Your task to perform on an android device: Search for Italian restaurants on Maps Image 0: 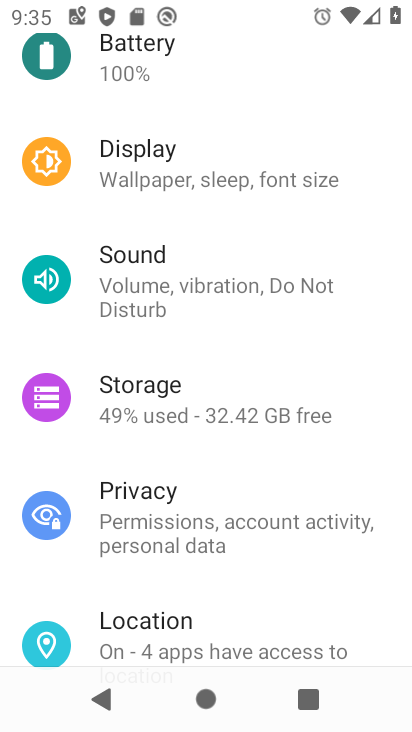
Step 0: press home button
Your task to perform on an android device: Search for Italian restaurants on Maps Image 1: 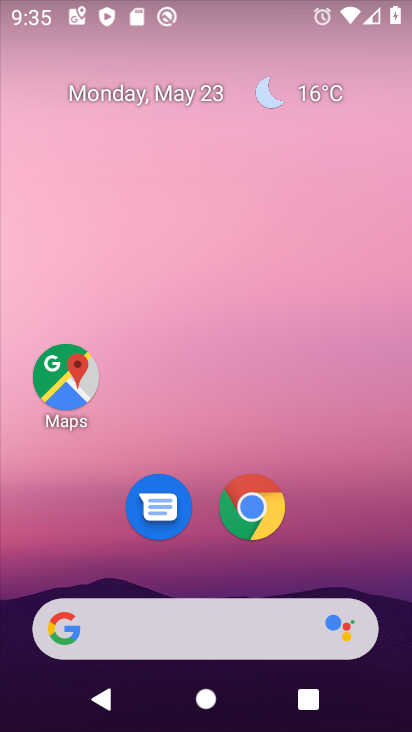
Step 1: click (58, 381)
Your task to perform on an android device: Search for Italian restaurants on Maps Image 2: 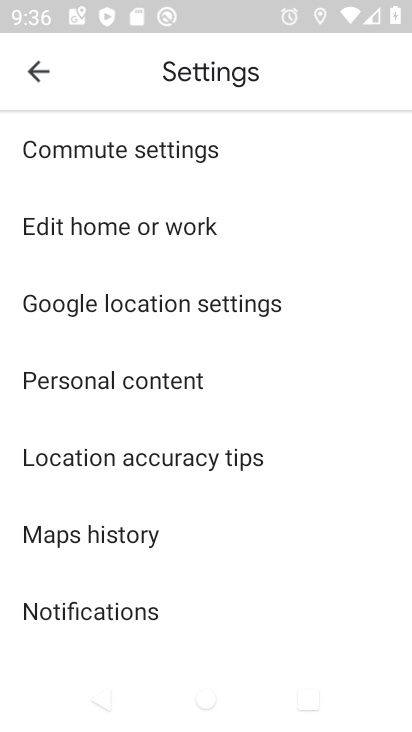
Step 2: click (34, 76)
Your task to perform on an android device: Search for Italian restaurants on Maps Image 3: 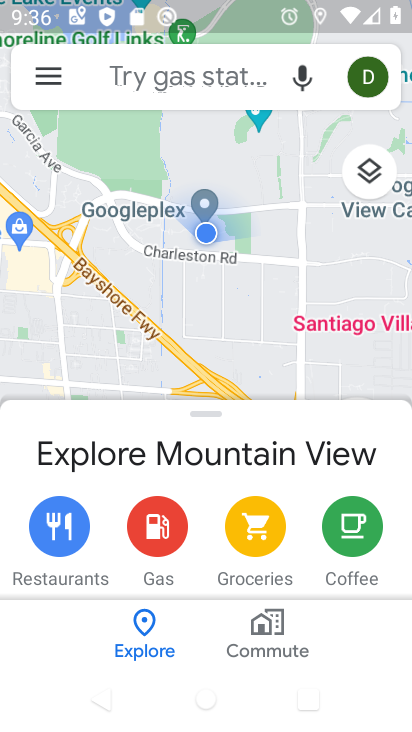
Step 3: click (145, 81)
Your task to perform on an android device: Search for Italian restaurants on Maps Image 4: 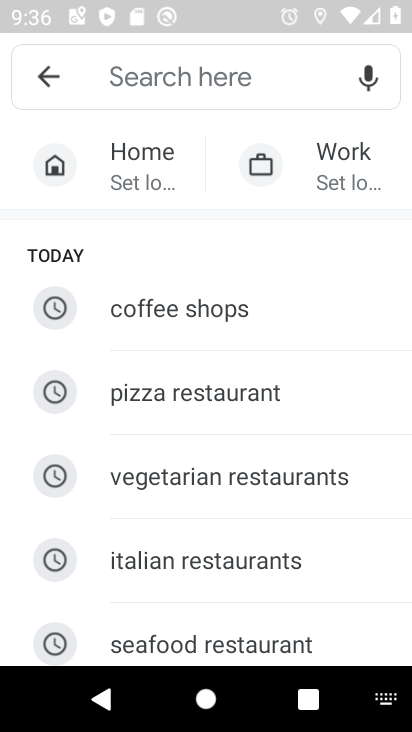
Step 4: type "italian restaurants"
Your task to perform on an android device: Search for Italian restaurants on Maps Image 5: 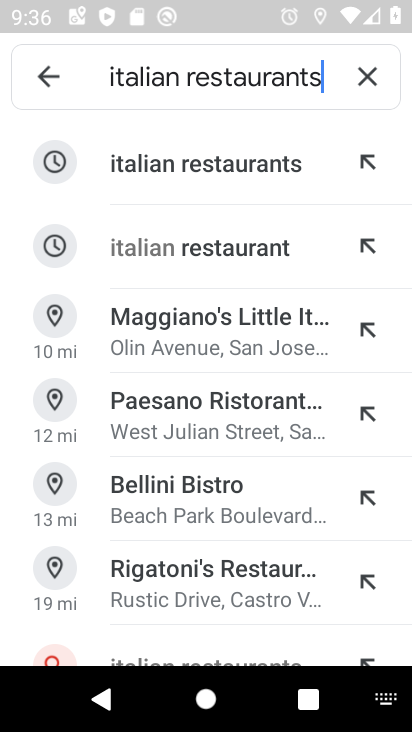
Step 5: click (146, 165)
Your task to perform on an android device: Search for Italian restaurants on Maps Image 6: 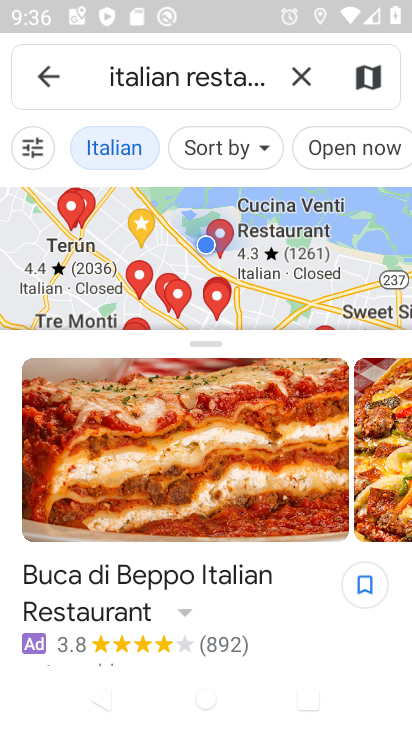
Step 6: task complete